Your task to perform on an android device: Go to ESPN.com Image 0: 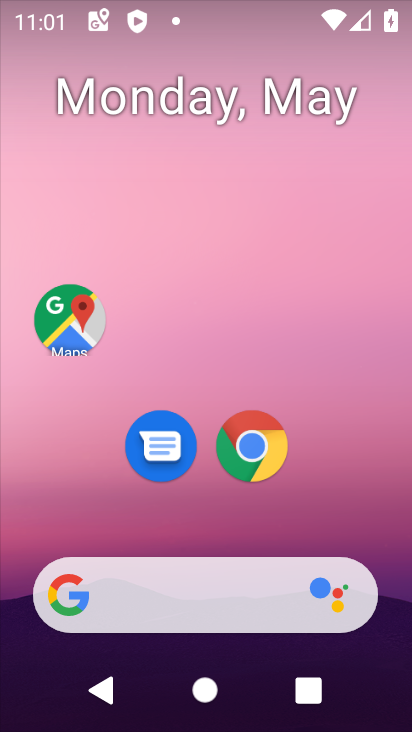
Step 0: click (266, 447)
Your task to perform on an android device: Go to ESPN.com Image 1: 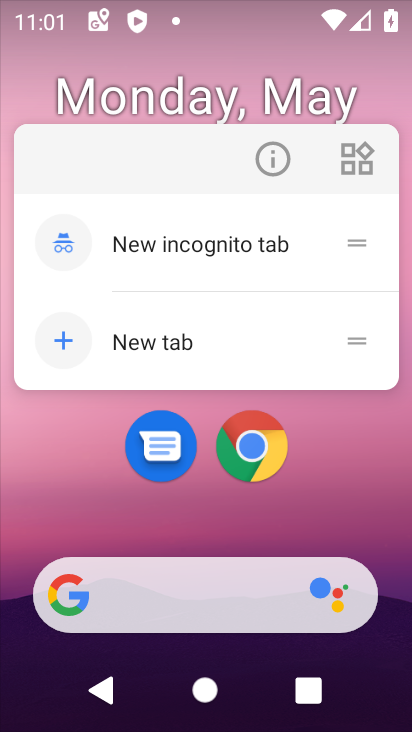
Step 1: click (255, 488)
Your task to perform on an android device: Go to ESPN.com Image 2: 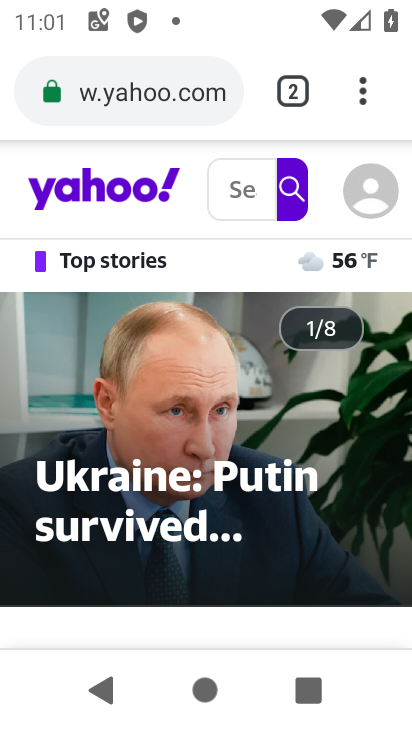
Step 2: click (189, 84)
Your task to perform on an android device: Go to ESPN.com Image 3: 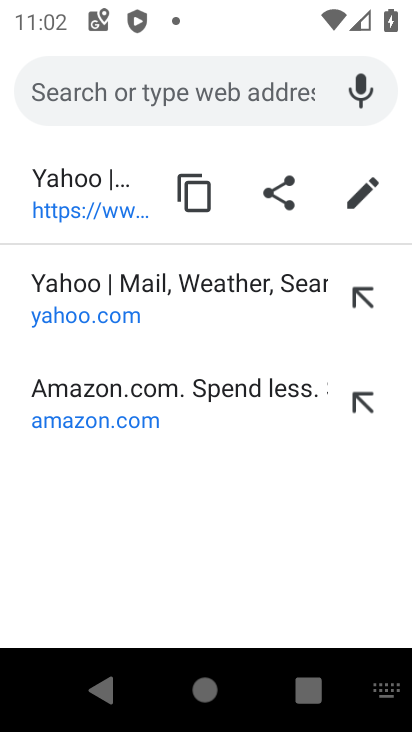
Step 3: type "espn.com"
Your task to perform on an android device: Go to ESPN.com Image 4: 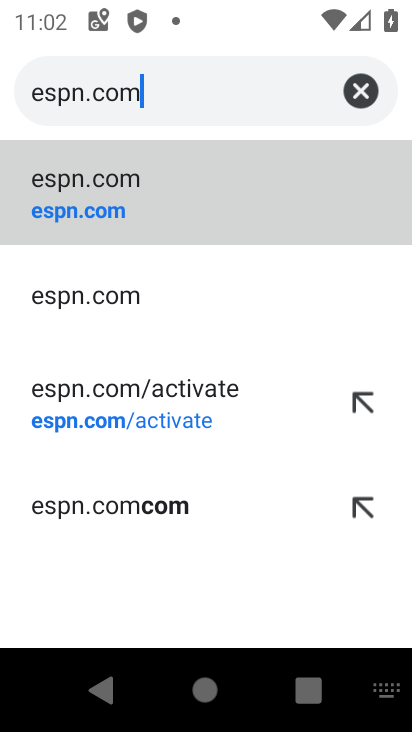
Step 4: click (101, 210)
Your task to perform on an android device: Go to ESPN.com Image 5: 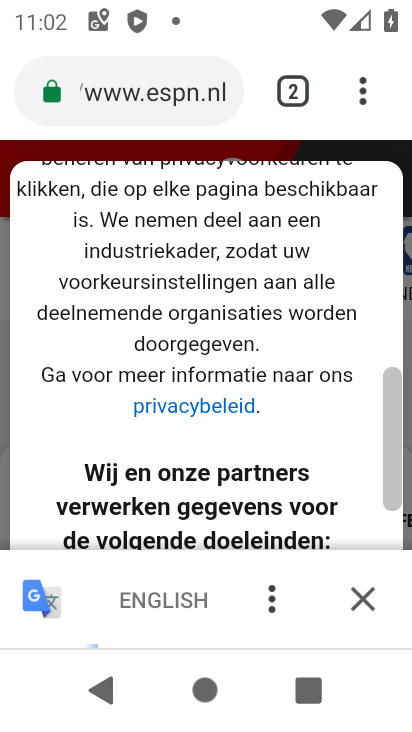
Step 5: task complete